Your task to perform on an android device: uninstall "Walmart Shopping & Grocery" Image 0: 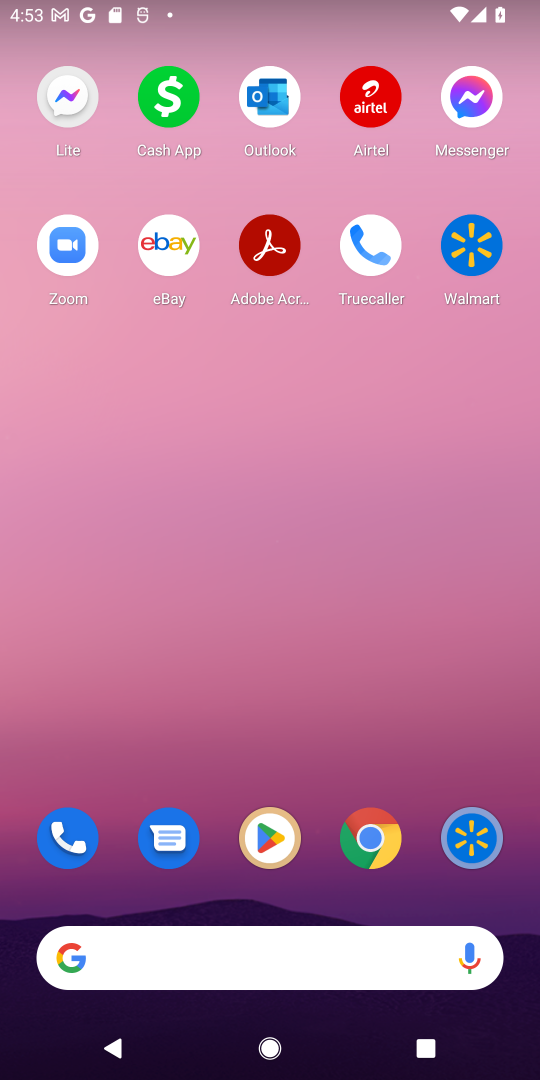
Step 0: press home button
Your task to perform on an android device: uninstall "Walmart Shopping & Grocery" Image 1: 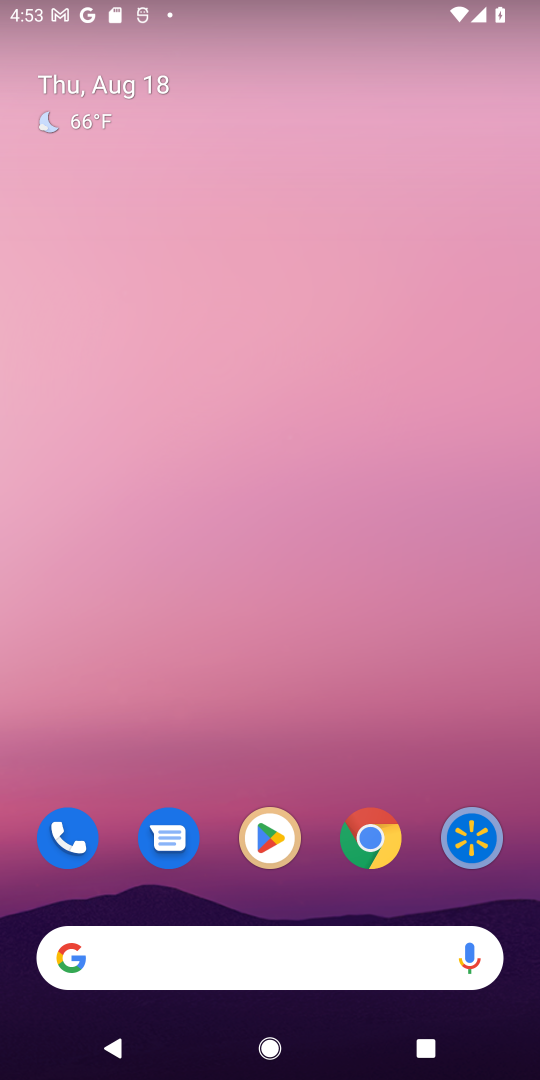
Step 1: drag from (214, 965) to (308, 128)
Your task to perform on an android device: uninstall "Walmart Shopping & Grocery" Image 2: 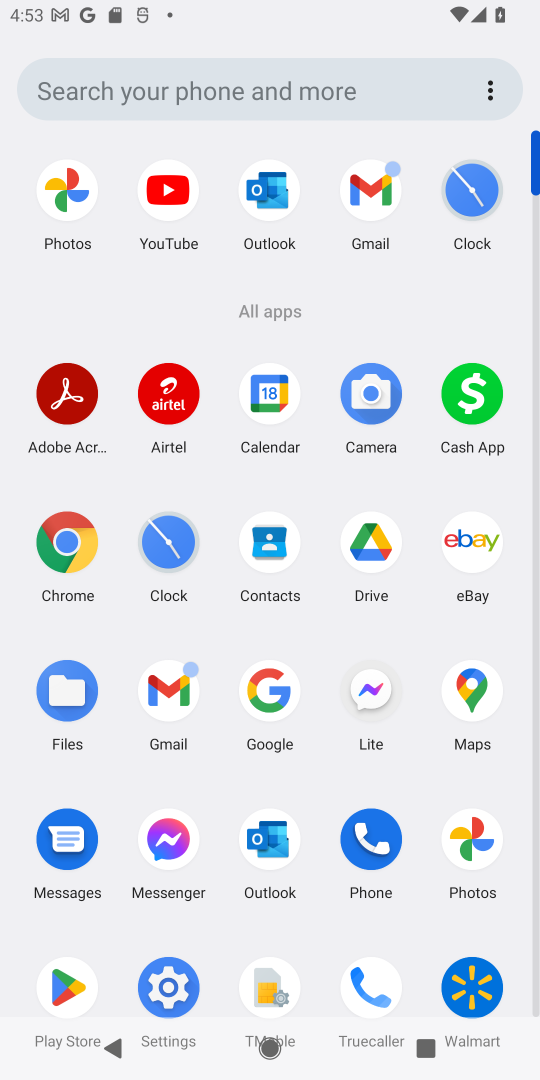
Step 2: click (69, 990)
Your task to perform on an android device: uninstall "Walmart Shopping & Grocery" Image 3: 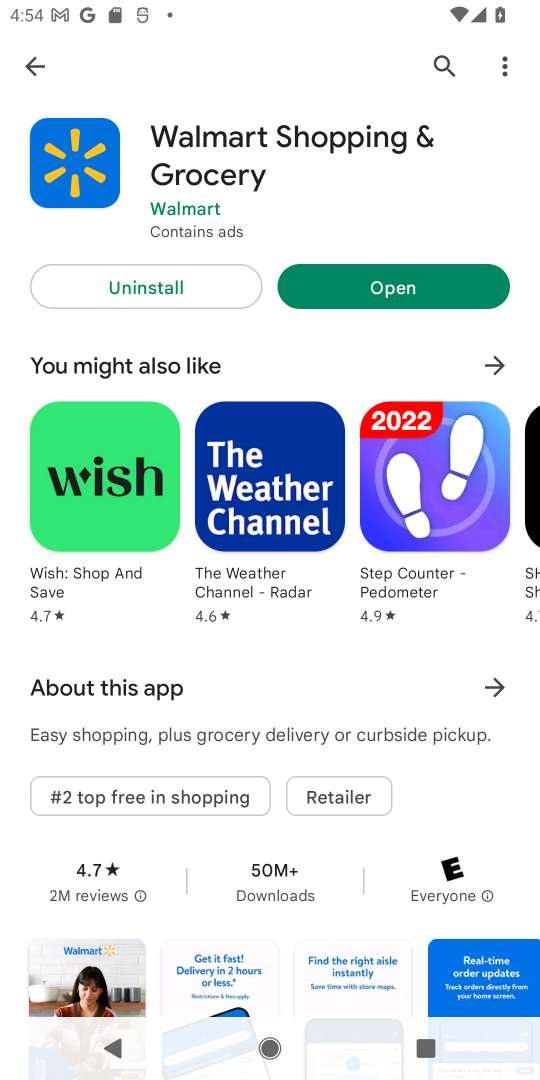
Step 3: click (191, 283)
Your task to perform on an android device: uninstall "Walmart Shopping & Grocery" Image 4: 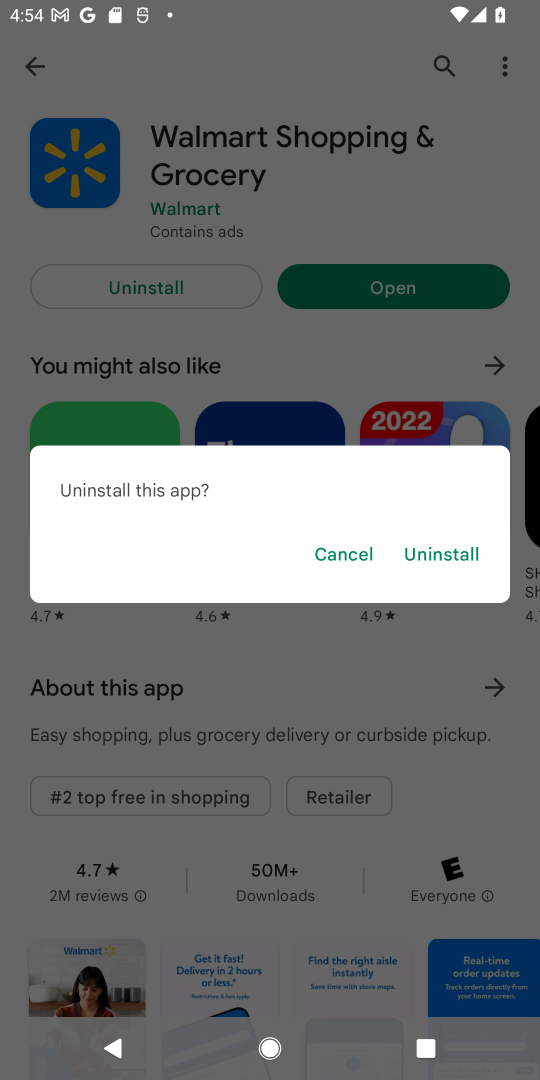
Step 4: click (423, 556)
Your task to perform on an android device: uninstall "Walmart Shopping & Grocery" Image 5: 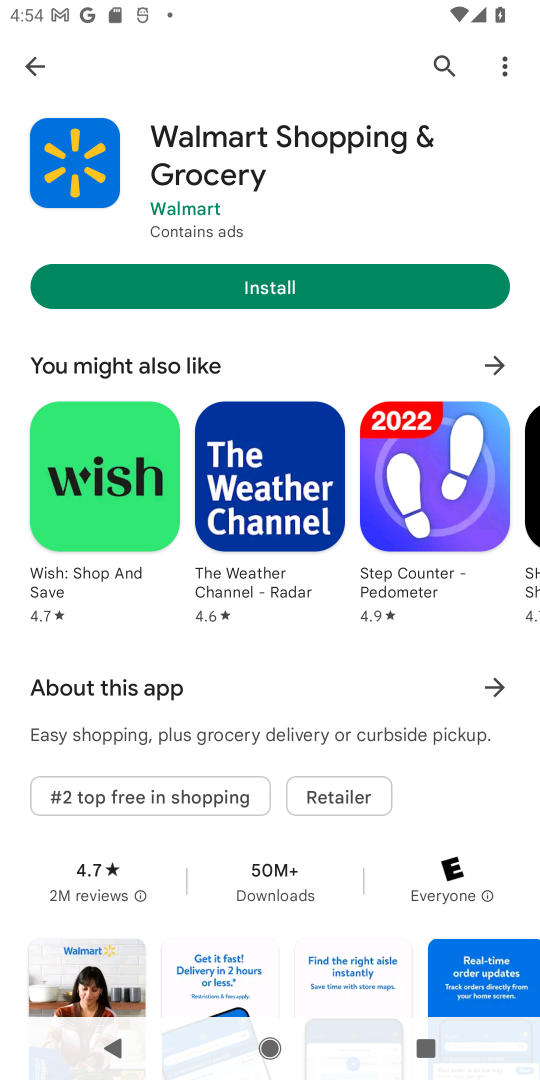
Step 5: task complete